Your task to perform on an android device: Open the Play Movies app and select the watchlist tab. Image 0: 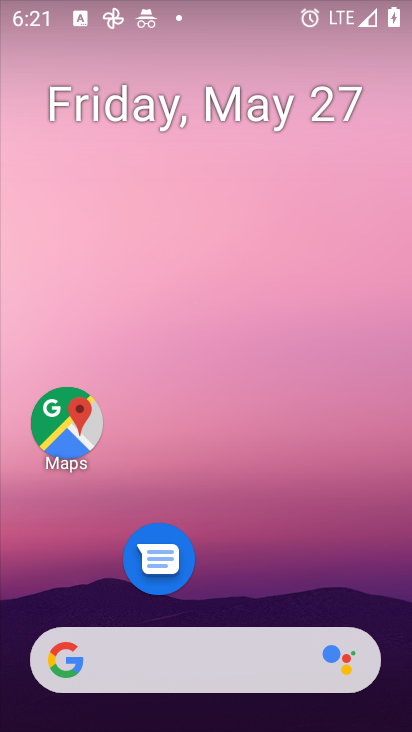
Step 0: drag from (163, 638) to (204, 57)
Your task to perform on an android device: Open the Play Movies app and select the watchlist tab. Image 1: 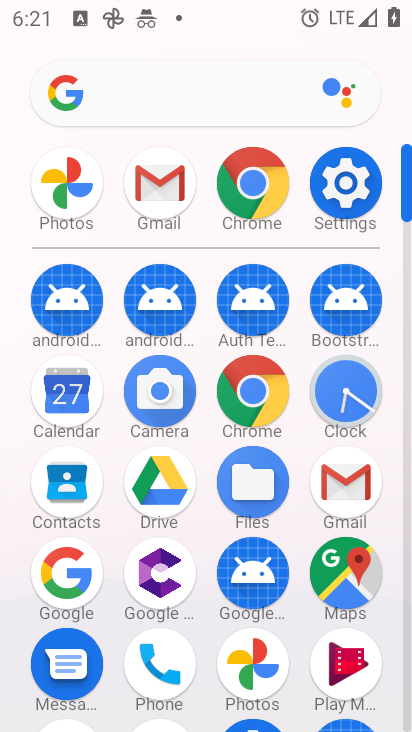
Step 1: drag from (252, 514) to (296, 131)
Your task to perform on an android device: Open the Play Movies app and select the watchlist tab. Image 2: 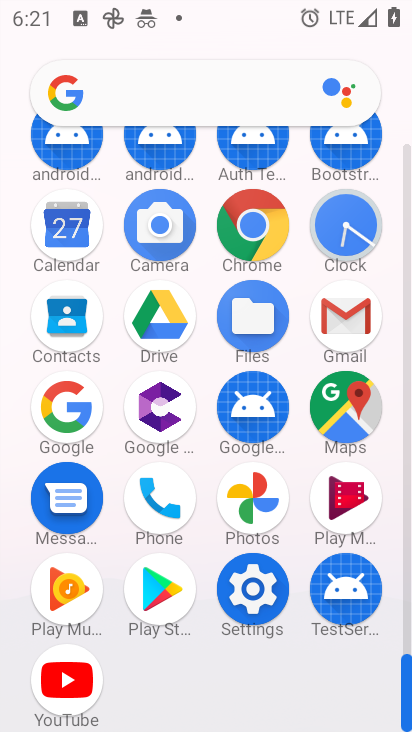
Step 2: drag from (257, 361) to (257, 545)
Your task to perform on an android device: Open the Play Movies app and select the watchlist tab. Image 3: 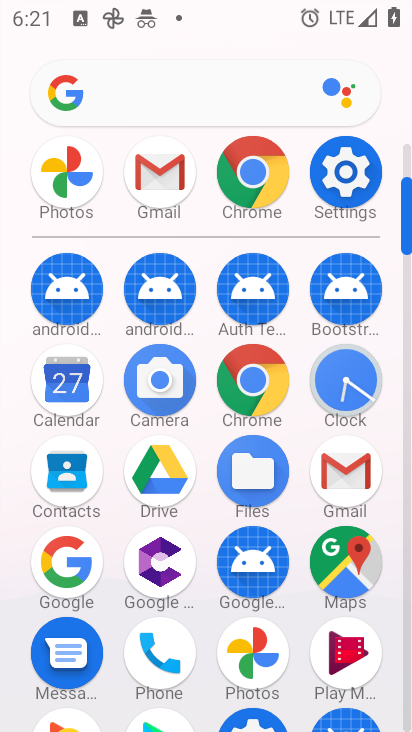
Step 3: drag from (296, 600) to (306, 552)
Your task to perform on an android device: Open the Play Movies app and select the watchlist tab. Image 4: 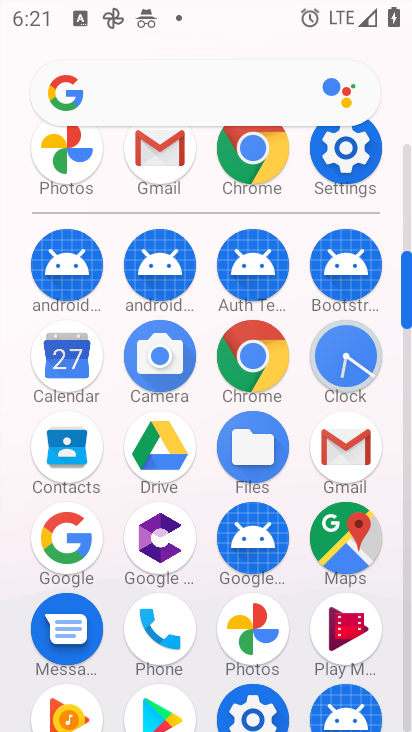
Step 4: click (361, 637)
Your task to perform on an android device: Open the Play Movies app and select the watchlist tab. Image 5: 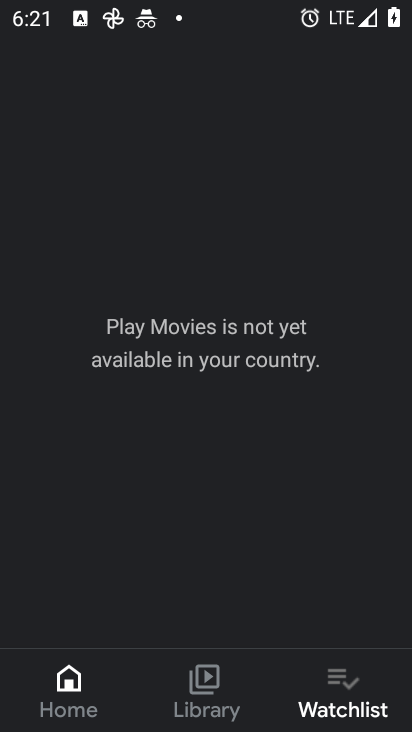
Step 5: click (350, 704)
Your task to perform on an android device: Open the Play Movies app and select the watchlist tab. Image 6: 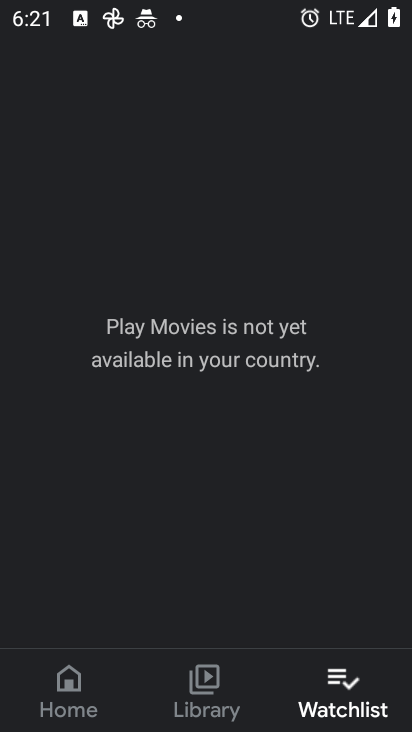
Step 6: task complete